Your task to perform on an android device: Go to Amazon Image 0: 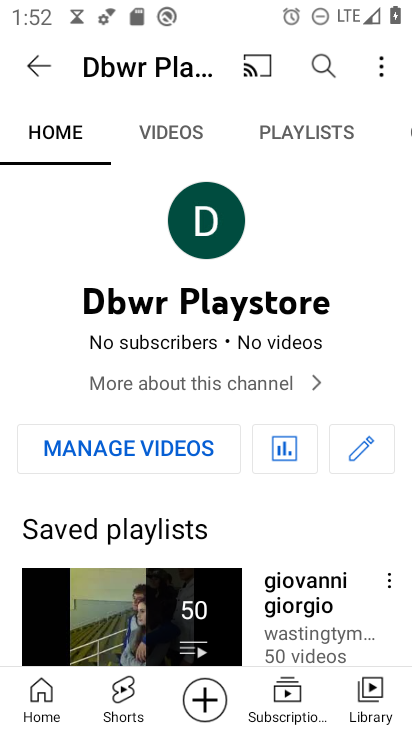
Step 0: press home button
Your task to perform on an android device: Go to Amazon Image 1: 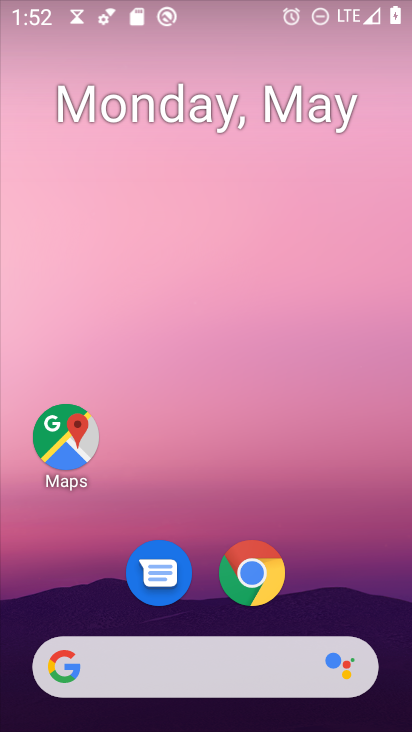
Step 1: drag from (347, 648) to (247, 1)
Your task to perform on an android device: Go to Amazon Image 2: 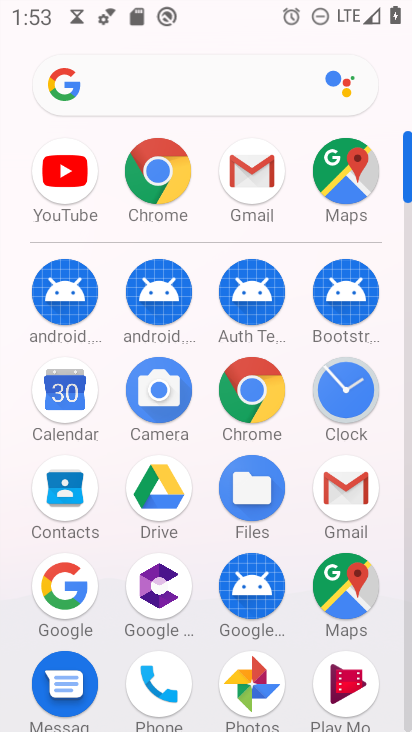
Step 2: click (265, 397)
Your task to perform on an android device: Go to Amazon Image 3: 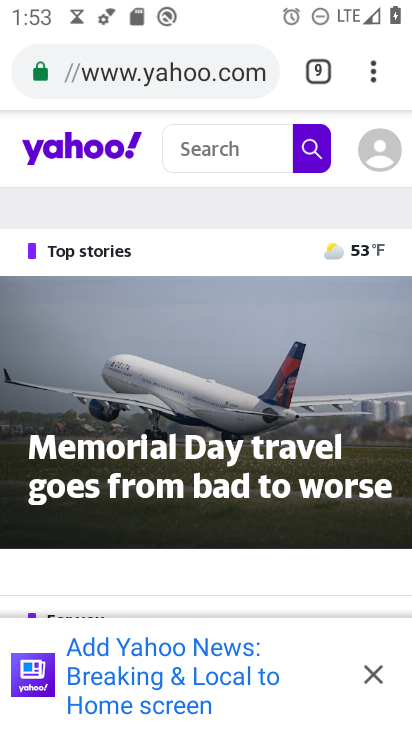
Step 3: click (230, 78)
Your task to perform on an android device: Go to Amazon Image 4: 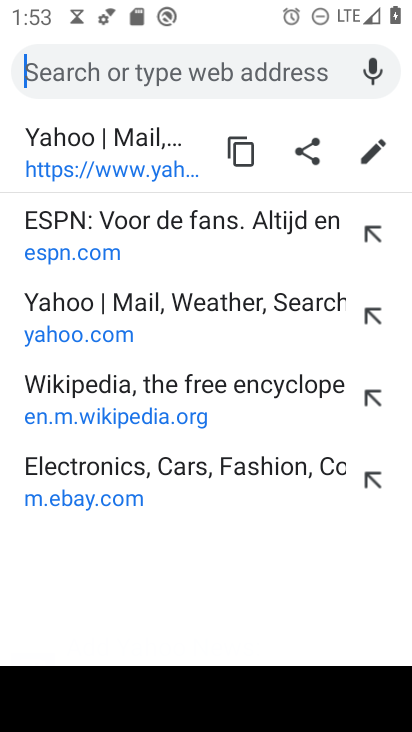
Step 4: type "amazon"
Your task to perform on an android device: Go to Amazon Image 5: 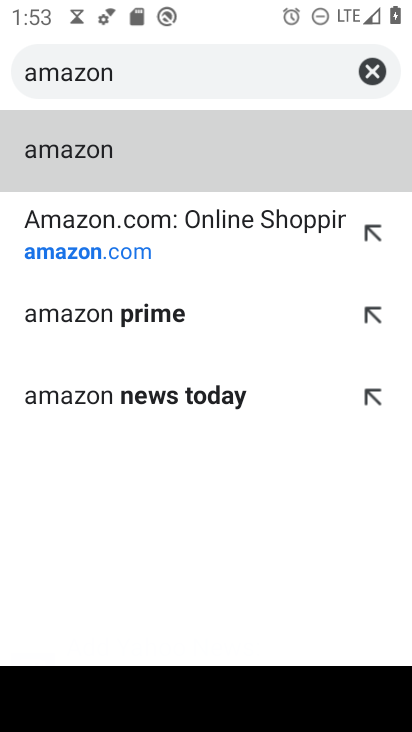
Step 5: click (178, 247)
Your task to perform on an android device: Go to Amazon Image 6: 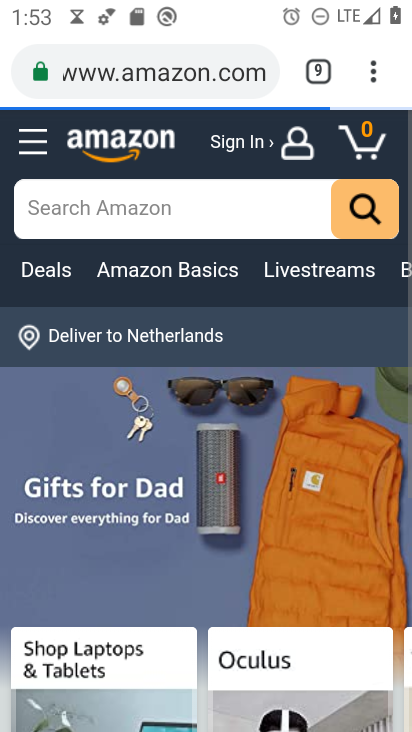
Step 6: task complete